Your task to perform on an android device: turn off data saver in the chrome app Image 0: 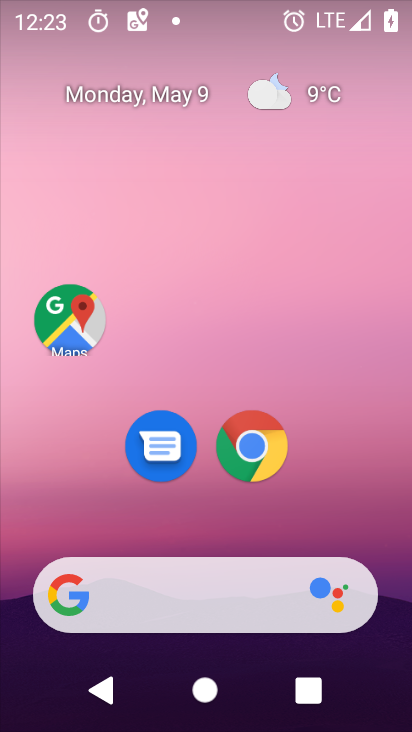
Step 0: click (248, 447)
Your task to perform on an android device: turn off data saver in the chrome app Image 1: 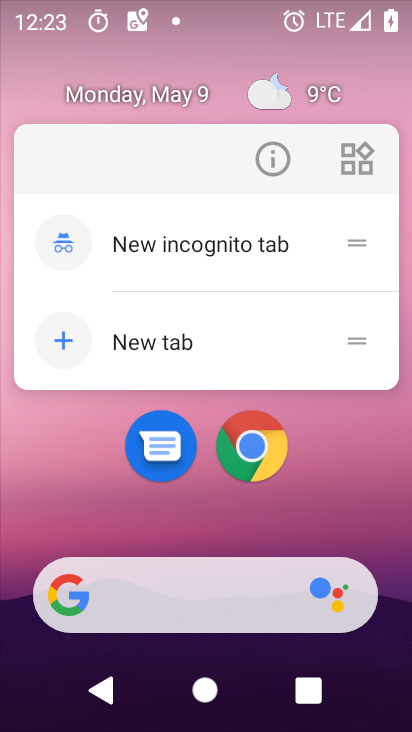
Step 1: click (251, 454)
Your task to perform on an android device: turn off data saver in the chrome app Image 2: 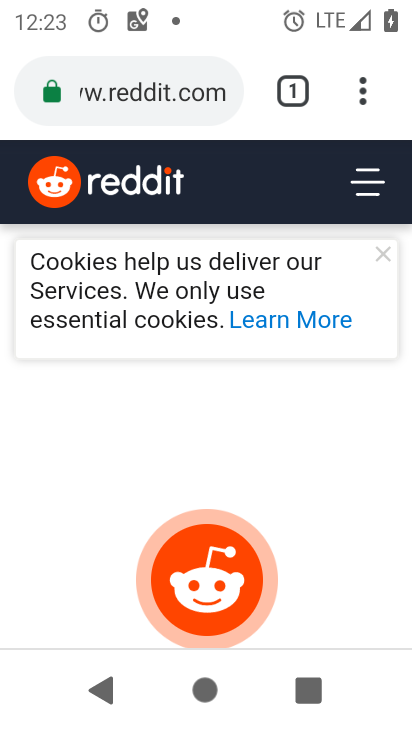
Step 2: click (368, 91)
Your task to perform on an android device: turn off data saver in the chrome app Image 3: 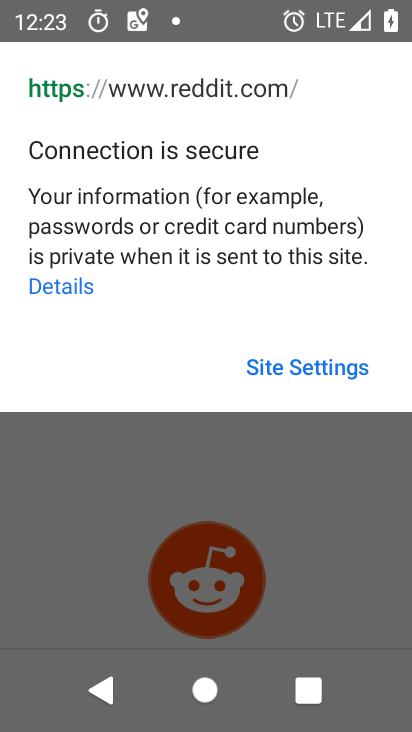
Step 3: click (338, 467)
Your task to perform on an android device: turn off data saver in the chrome app Image 4: 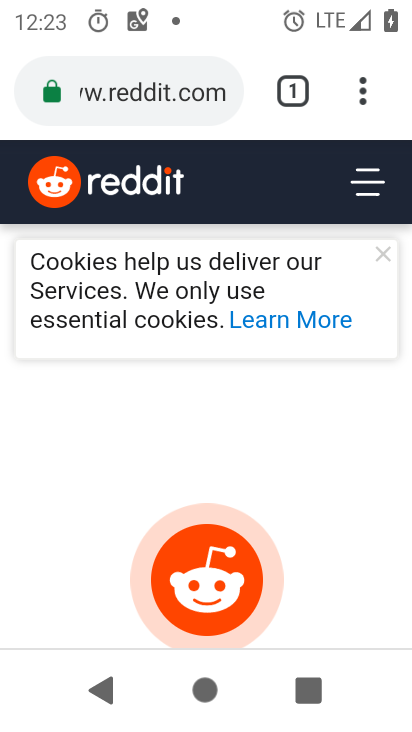
Step 4: drag from (368, 87) to (86, 487)
Your task to perform on an android device: turn off data saver in the chrome app Image 5: 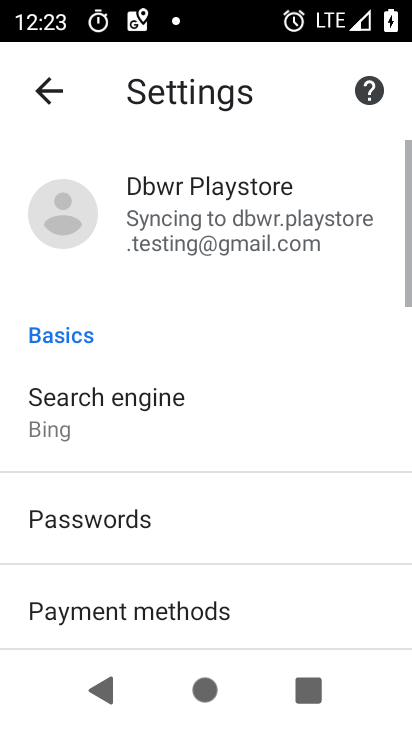
Step 5: drag from (211, 568) to (201, 137)
Your task to perform on an android device: turn off data saver in the chrome app Image 6: 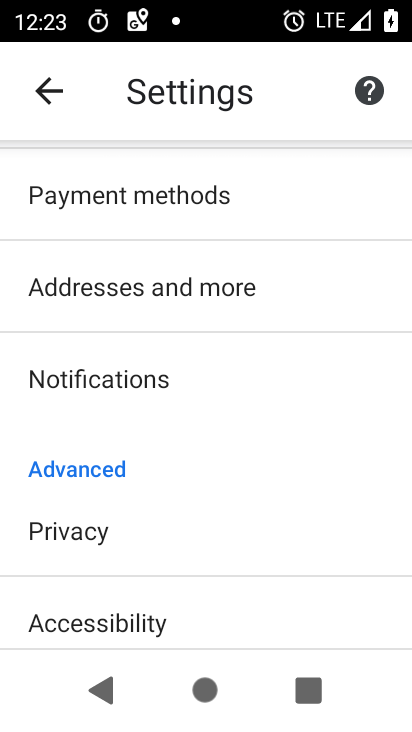
Step 6: drag from (189, 478) to (167, 169)
Your task to perform on an android device: turn off data saver in the chrome app Image 7: 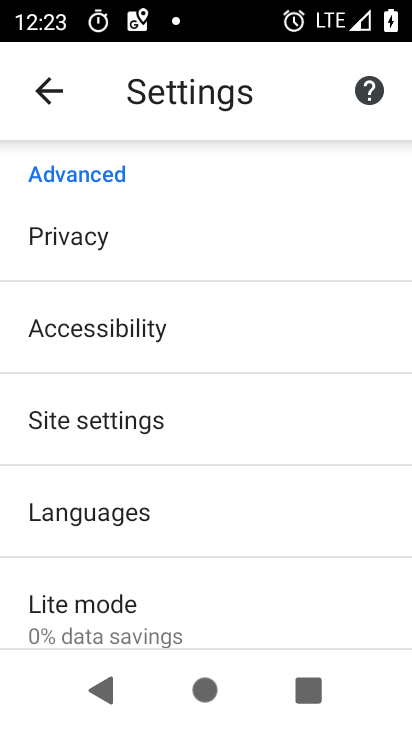
Step 7: click (109, 621)
Your task to perform on an android device: turn off data saver in the chrome app Image 8: 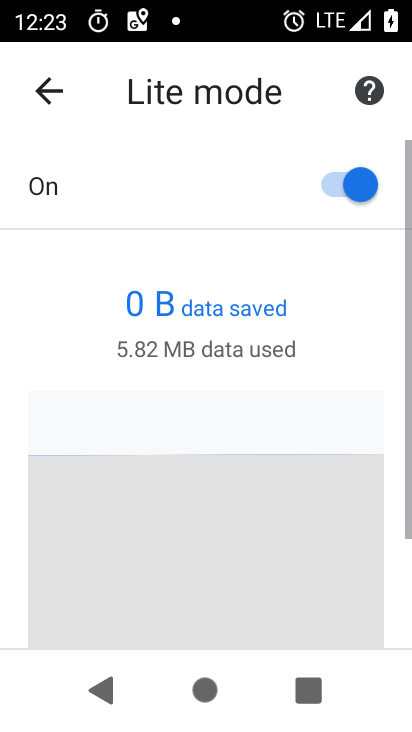
Step 8: click (354, 196)
Your task to perform on an android device: turn off data saver in the chrome app Image 9: 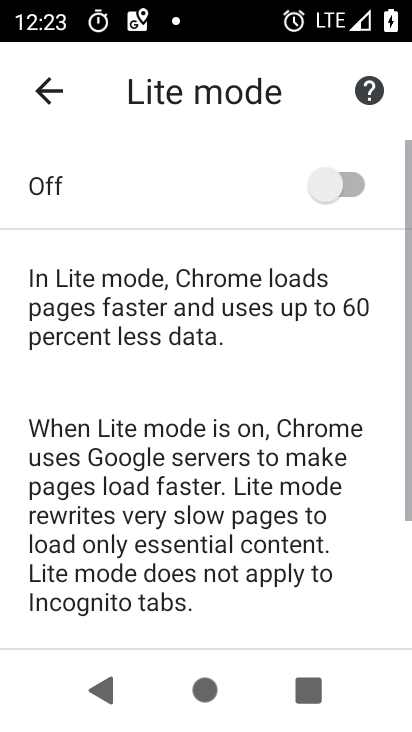
Step 9: task complete